Your task to perform on an android device: What's on my calendar today? Image 0: 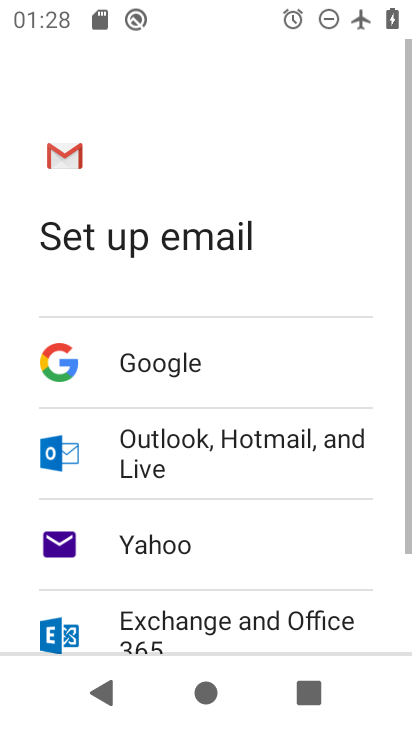
Step 0: press home button
Your task to perform on an android device: What's on my calendar today? Image 1: 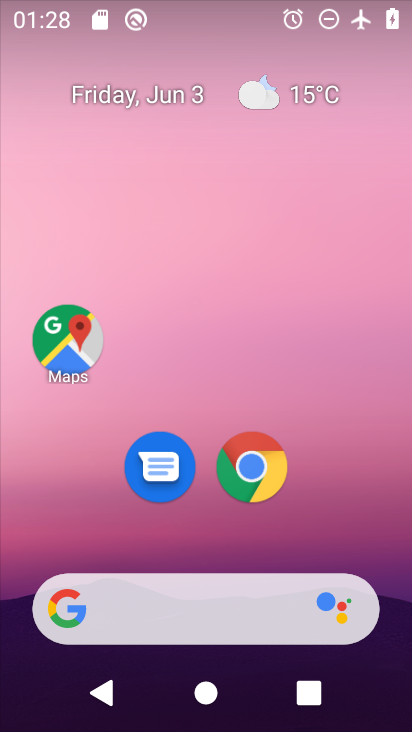
Step 1: drag from (398, 606) to (349, 101)
Your task to perform on an android device: What's on my calendar today? Image 2: 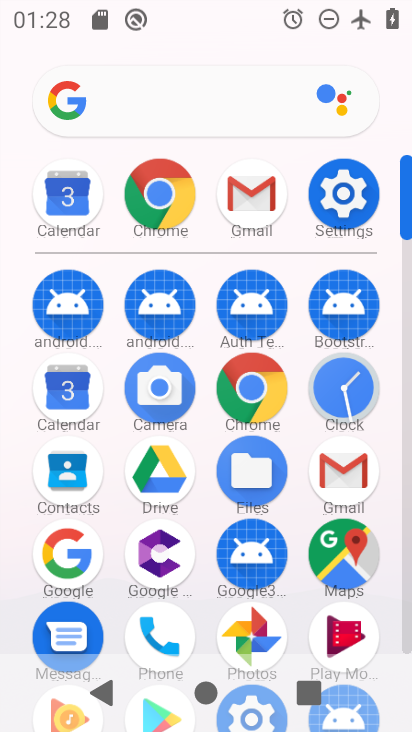
Step 2: click (406, 653)
Your task to perform on an android device: What's on my calendar today? Image 3: 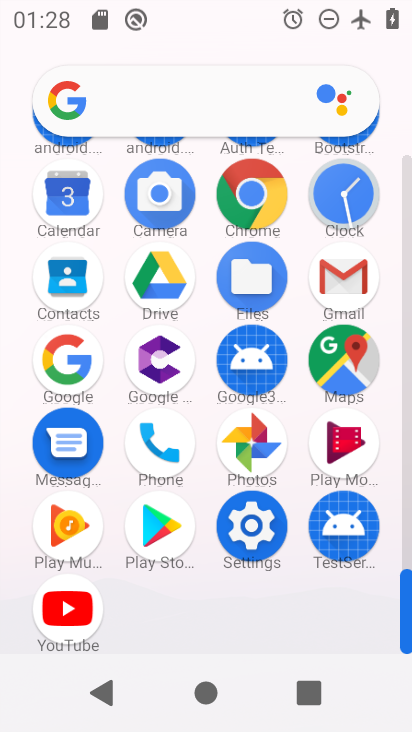
Step 3: click (64, 192)
Your task to perform on an android device: What's on my calendar today? Image 4: 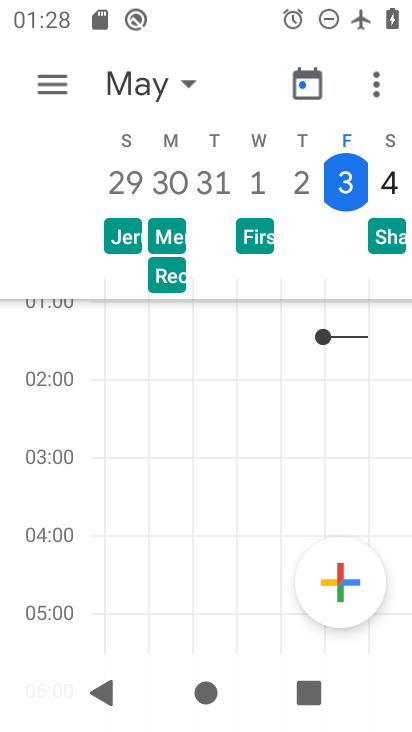
Step 4: click (48, 78)
Your task to perform on an android device: What's on my calendar today? Image 5: 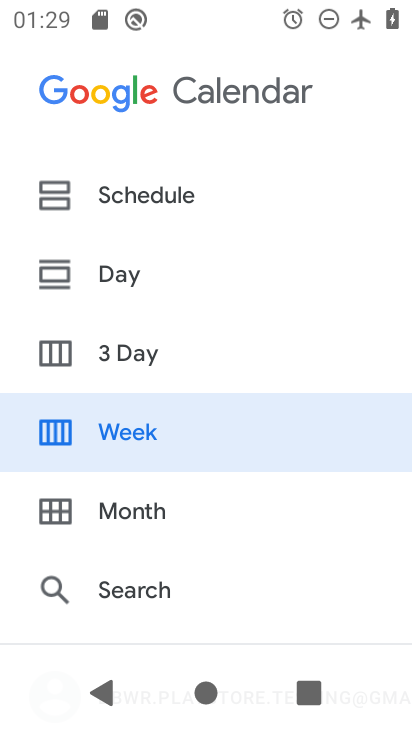
Step 5: click (128, 276)
Your task to perform on an android device: What's on my calendar today? Image 6: 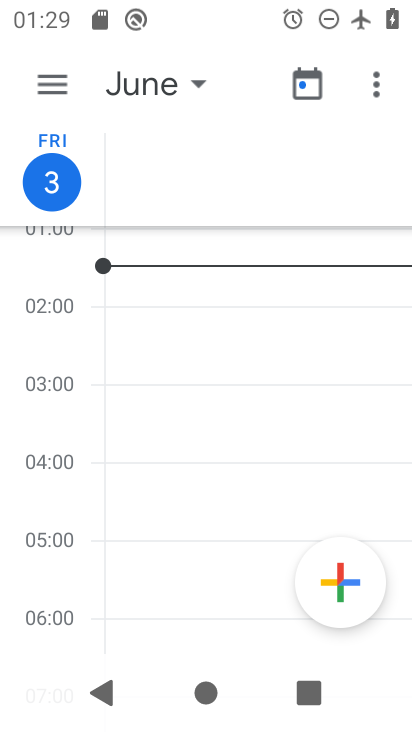
Step 6: task complete